Your task to perform on an android device: Open display settings Image 0: 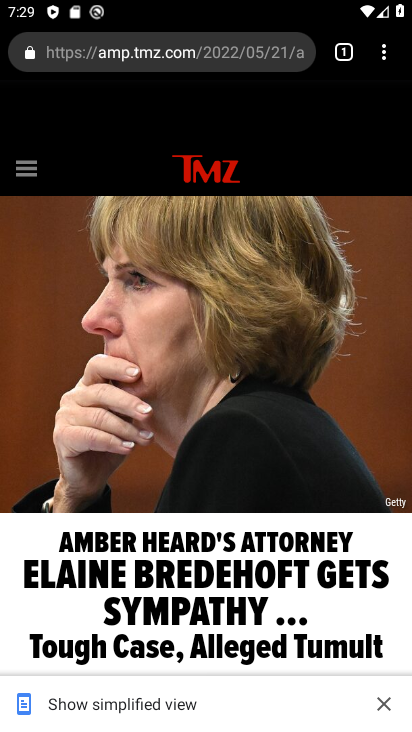
Step 0: press home button
Your task to perform on an android device: Open display settings Image 1: 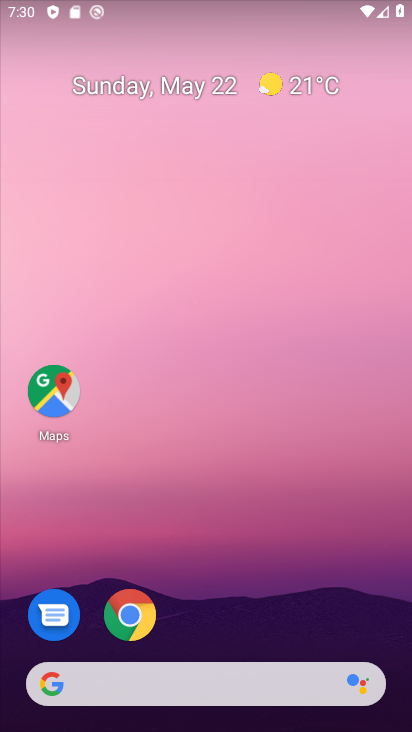
Step 1: drag from (208, 573) to (227, 255)
Your task to perform on an android device: Open display settings Image 2: 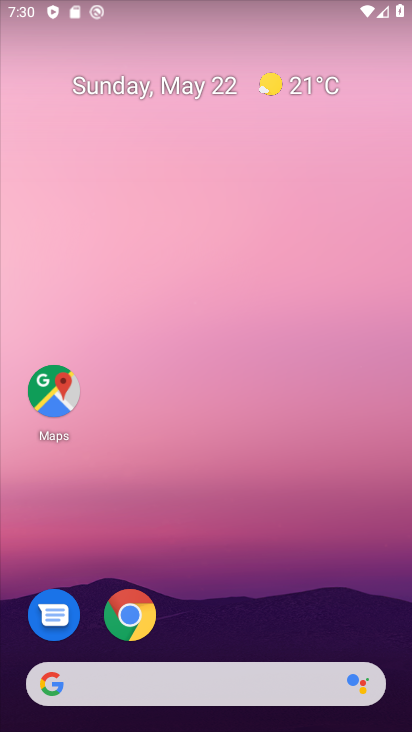
Step 2: drag from (262, 589) to (279, 198)
Your task to perform on an android device: Open display settings Image 3: 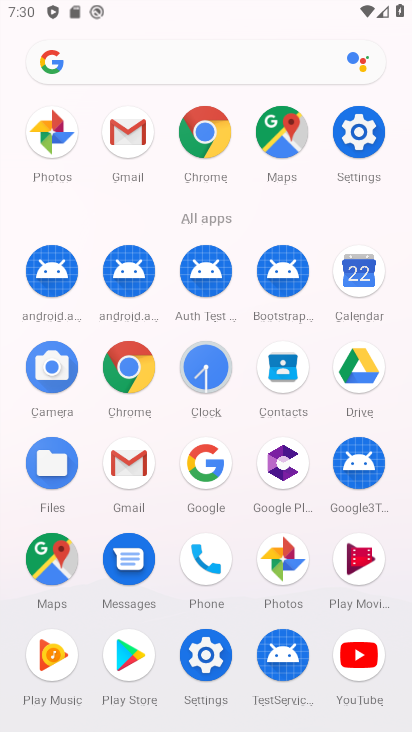
Step 3: click (375, 129)
Your task to perform on an android device: Open display settings Image 4: 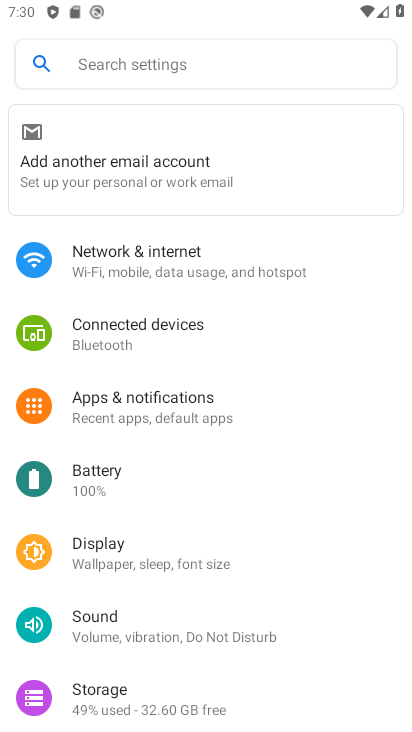
Step 4: click (147, 560)
Your task to perform on an android device: Open display settings Image 5: 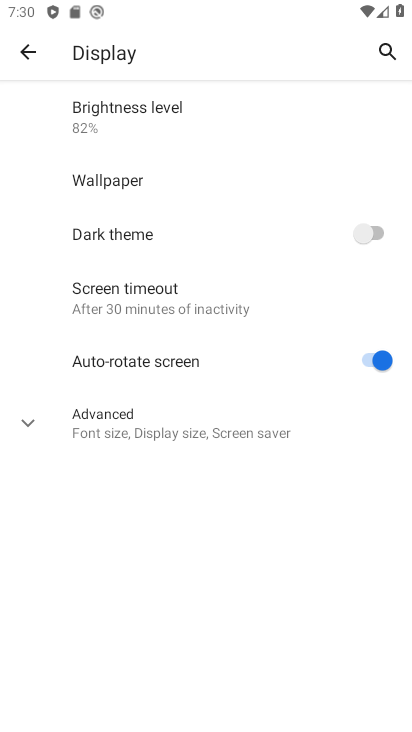
Step 5: task complete